Your task to perform on an android device: make emails show in primary in the gmail app Image 0: 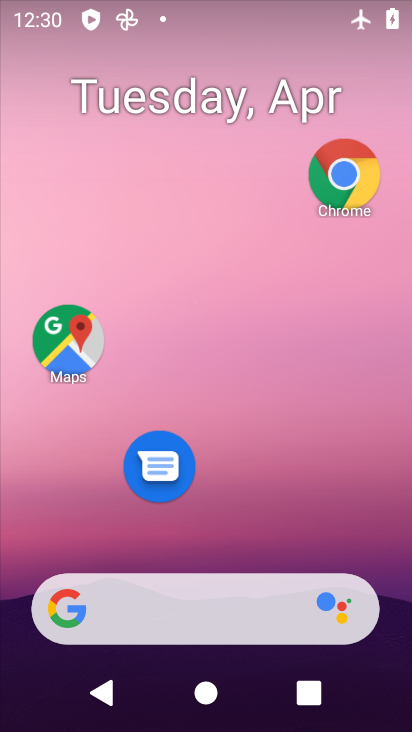
Step 0: drag from (235, 532) to (315, 11)
Your task to perform on an android device: make emails show in primary in the gmail app Image 1: 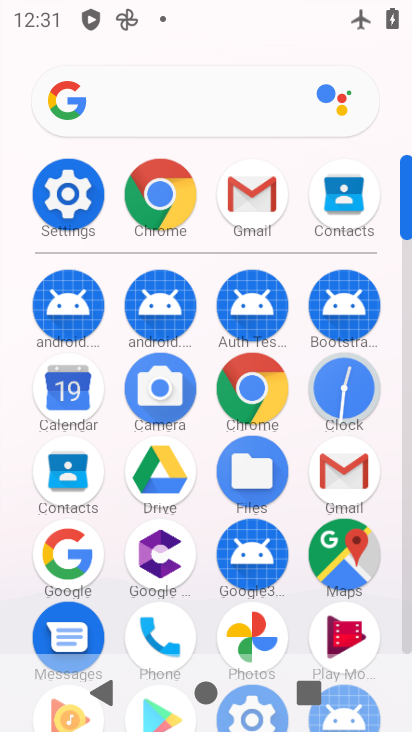
Step 1: click (339, 477)
Your task to perform on an android device: make emails show in primary in the gmail app Image 2: 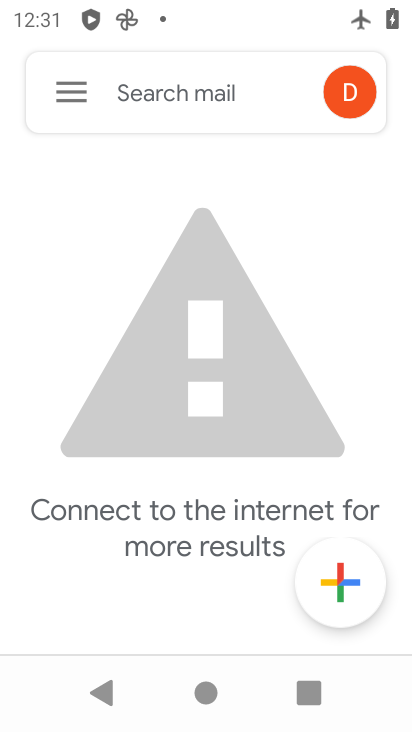
Step 2: click (73, 89)
Your task to perform on an android device: make emails show in primary in the gmail app Image 3: 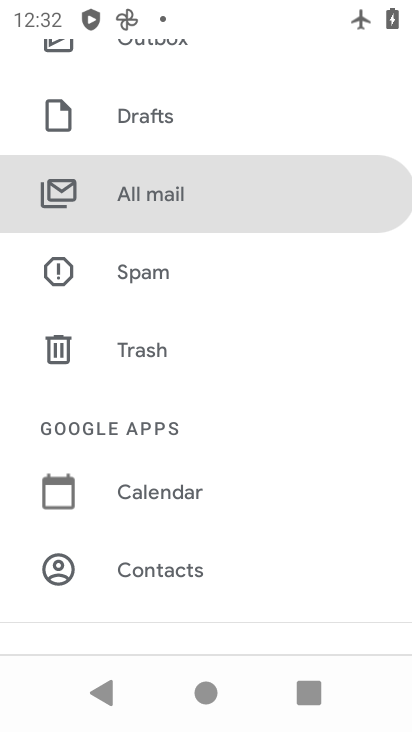
Step 3: task complete